Your task to perform on an android device: When is my next meeting? Image 0: 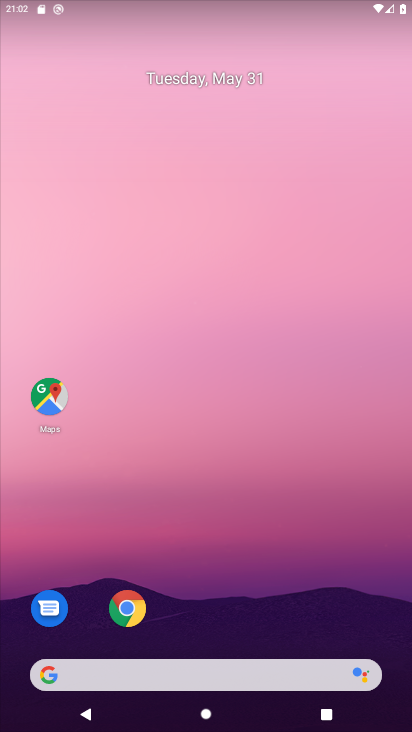
Step 0: drag from (271, 616) to (193, 100)
Your task to perform on an android device: When is my next meeting? Image 1: 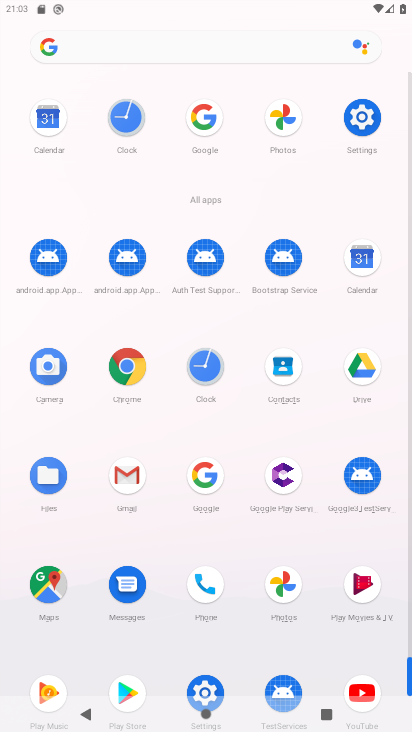
Step 1: click (48, 120)
Your task to perform on an android device: When is my next meeting? Image 2: 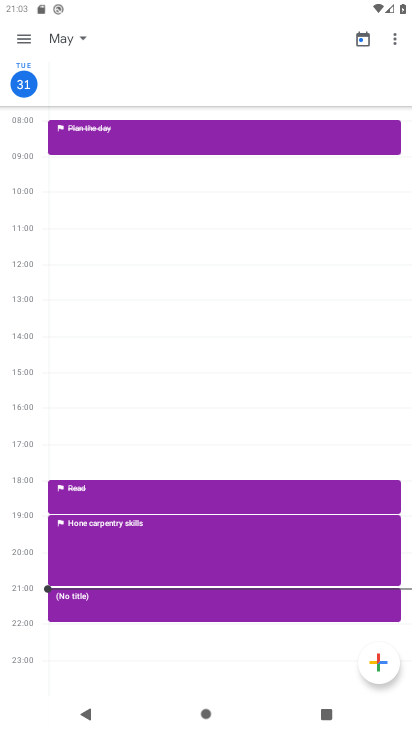
Step 2: click (83, 37)
Your task to perform on an android device: When is my next meeting? Image 3: 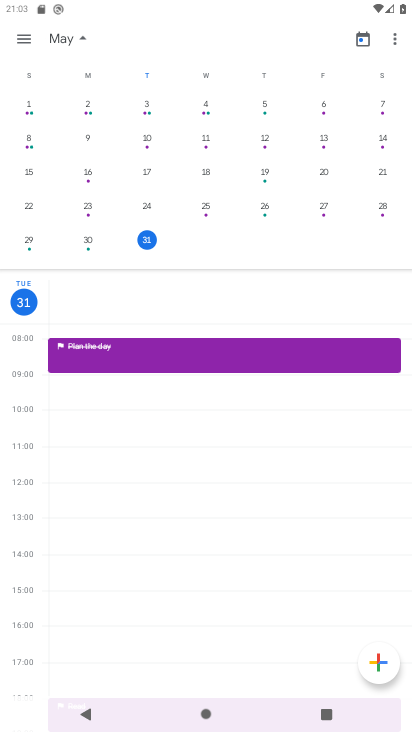
Step 3: drag from (354, 180) to (0, 181)
Your task to perform on an android device: When is my next meeting? Image 4: 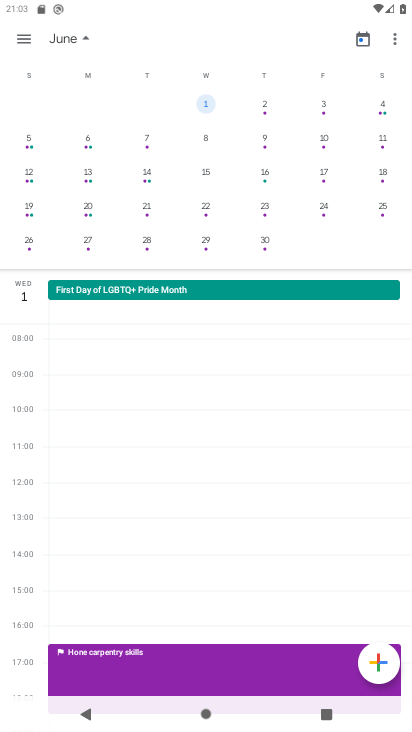
Step 4: click (205, 111)
Your task to perform on an android device: When is my next meeting? Image 5: 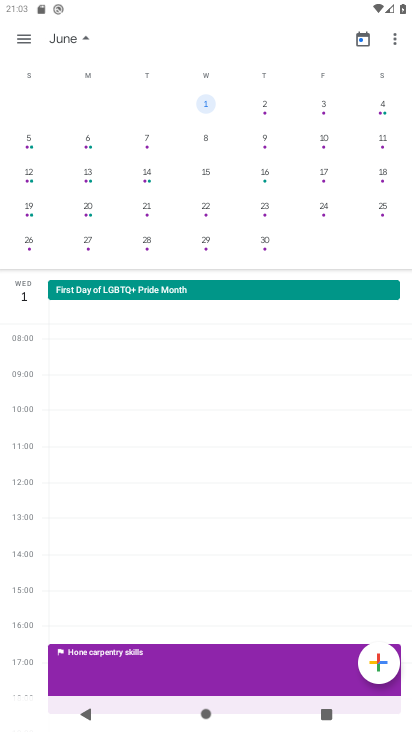
Step 5: click (28, 44)
Your task to perform on an android device: When is my next meeting? Image 6: 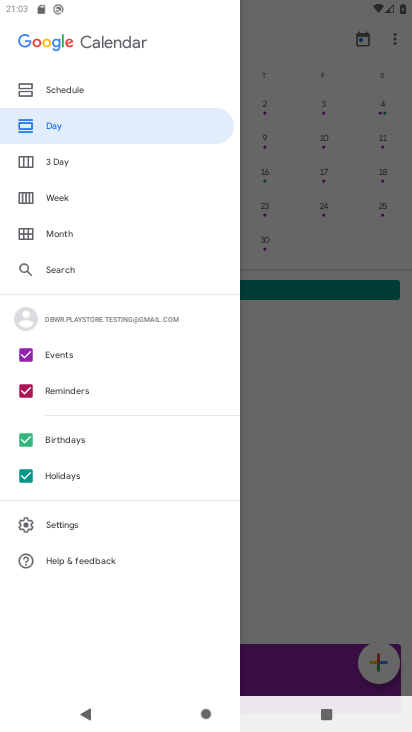
Step 6: click (71, 90)
Your task to perform on an android device: When is my next meeting? Image 7: 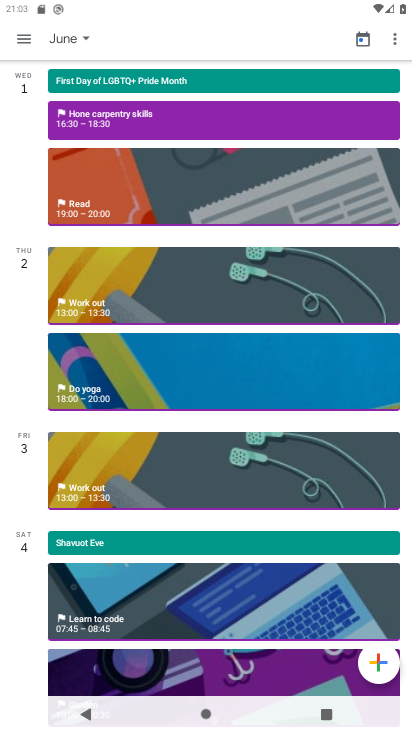
Step 7: task complete